Your task to perform on an android device: Open location settings Image 0: 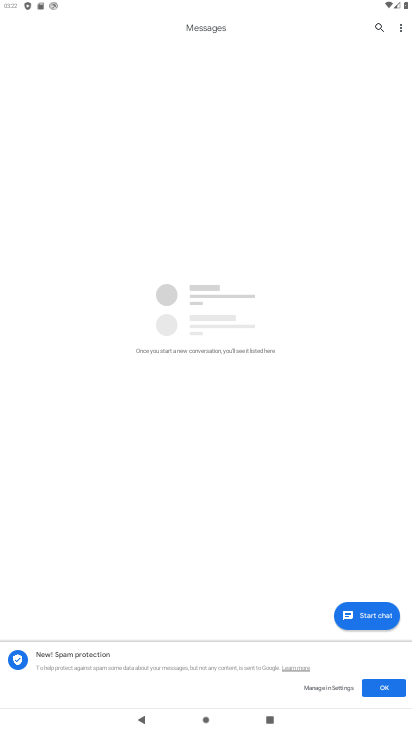
Step 0: press home button
Your task to perform on an android device: Open location settings Image 1: 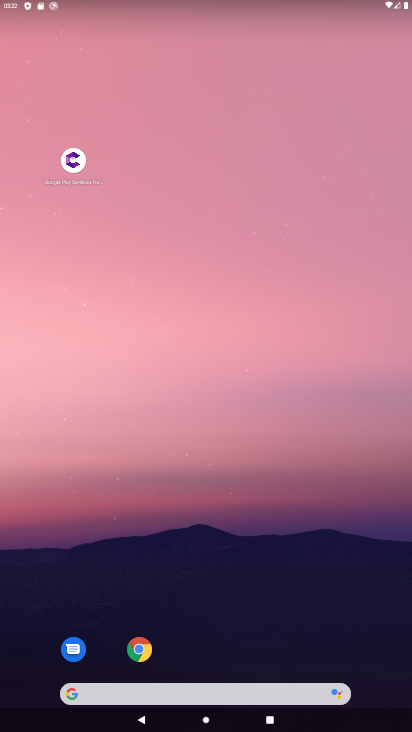
Step 1: drag from (233, 638) to (214, 111)
Your task to perform on an android device: Open location settings Image 2: 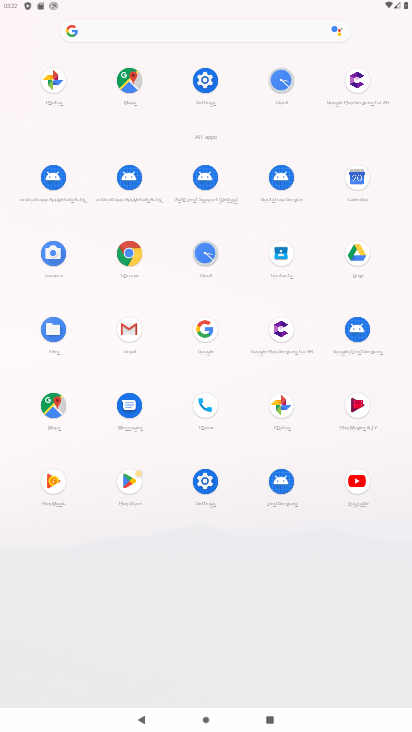
Step 2: click (219, 92)
Your task to perform on an android device: Open location settings Image 3: 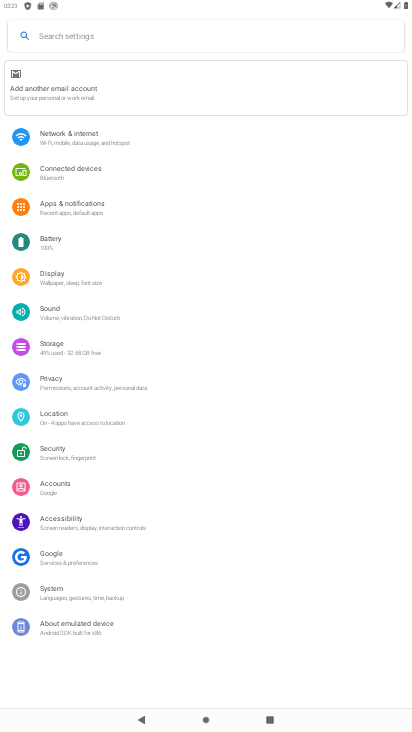
Step 3: click (50, 421)
Your task to perform on an android device: Open location settings Image 4: 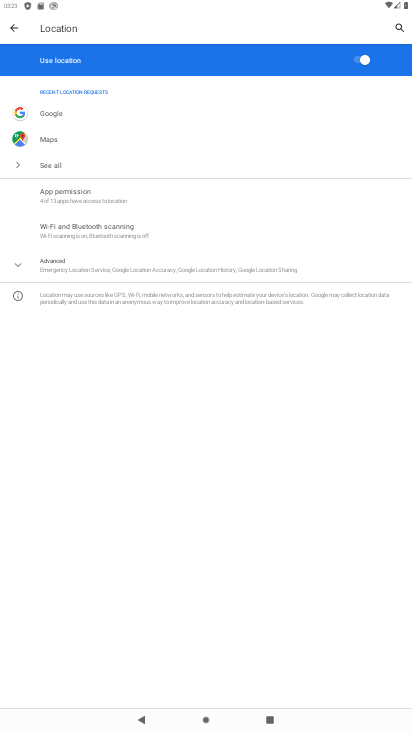
Step 4: task complete